Your task to perform on an android device: Go to location settings Image 0: 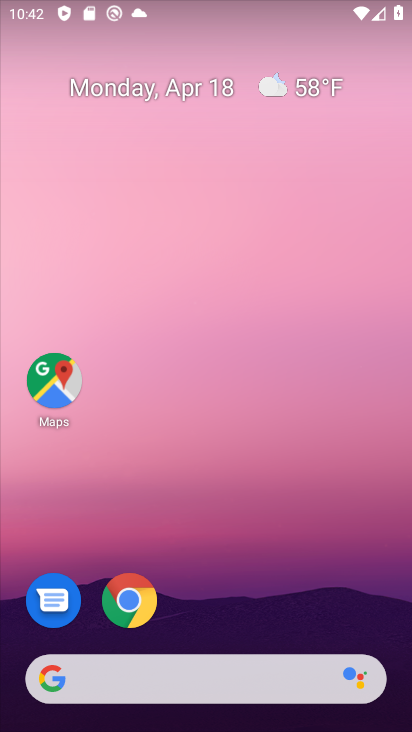
Step 0: drag from (209, 448) to (181, 0)
Your task to perform on an android device: Go to location settings Image 1: 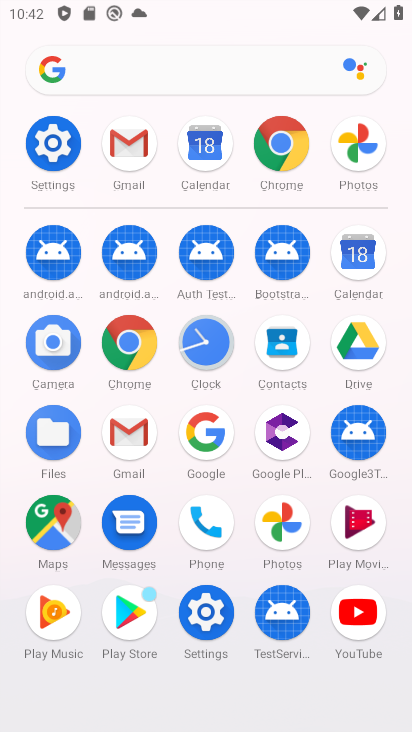
Step 1: click (52, 145)
Your task to perform on an android device: Go to location settings Image 2: 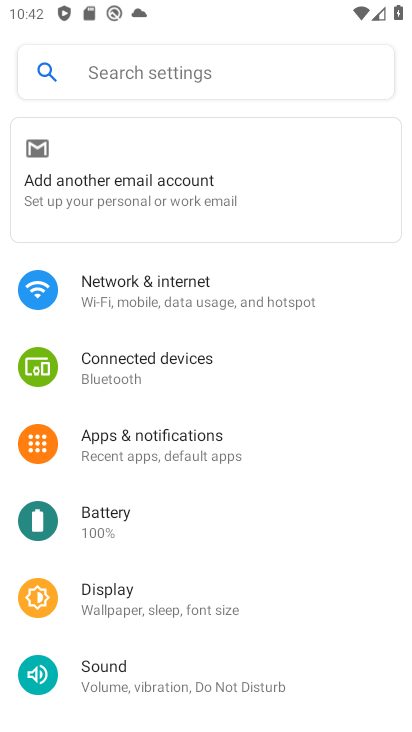
Step 2: drag from (159, 630) to (155, 267)
Your task to perform on an android device: Go to location settings Image 3: 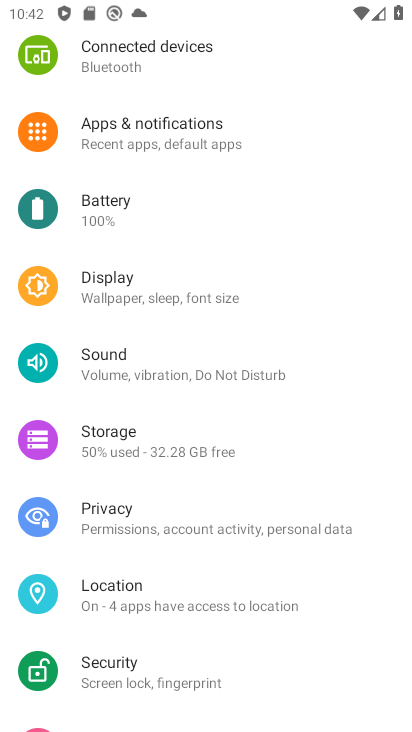
Step 3: click (116, 585)
Your task to perform on an android device: Go to location settings Image 4: 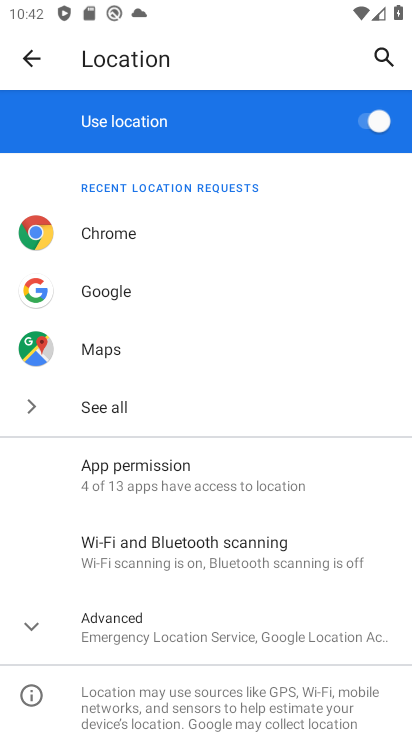
Step 4: task complete